Your task to perform on an android device: Open Google Chrome and open the bookmarks view Image 0: 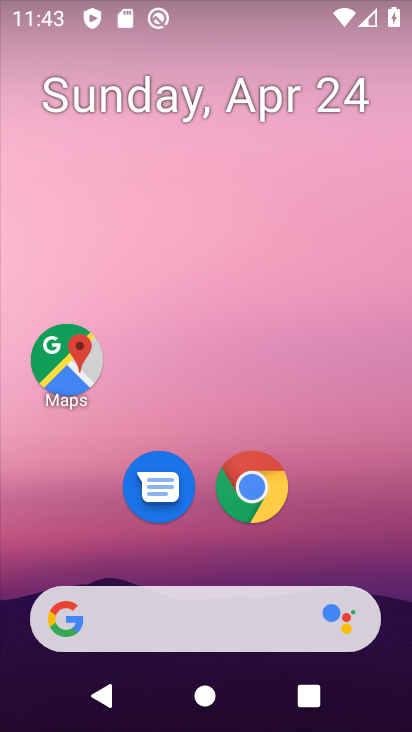
Step 0: drag from (391, 543) to (267, 71)
Your task to perform on an android device: Open Google Chrome and open the bookmarks view Image 1: 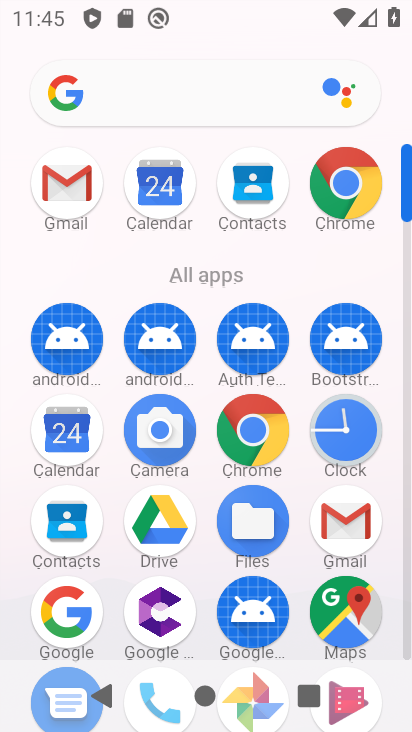
Step 1: click (259, 437)
Your task to perform on an android device: Open Google Chrome and open the bookmarks view Image 2: 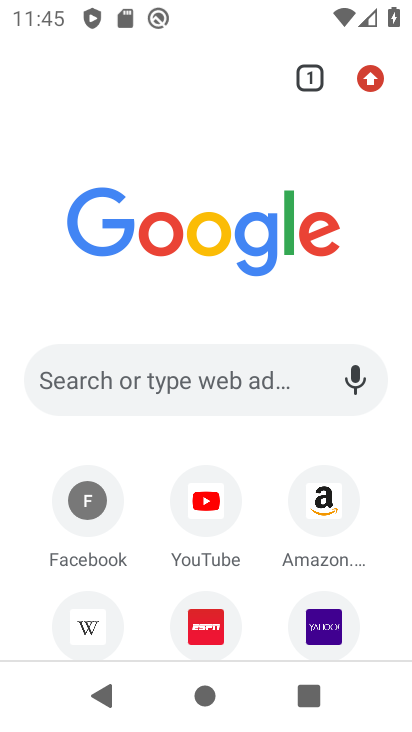
Step 2: click (377, 73)
Your task to perform on an android device: Open Google Chrome and open the bookmarks view Image 3: 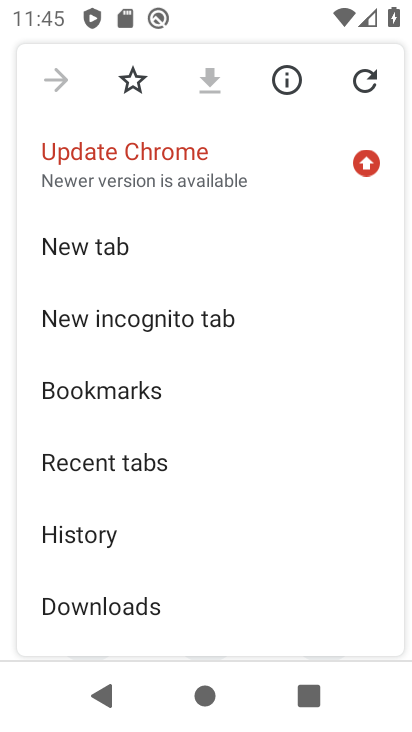
Step 3: click (136, 390)
Your task to perform on an android device: Open Google Chrome and open the bookmarks view Image 4: 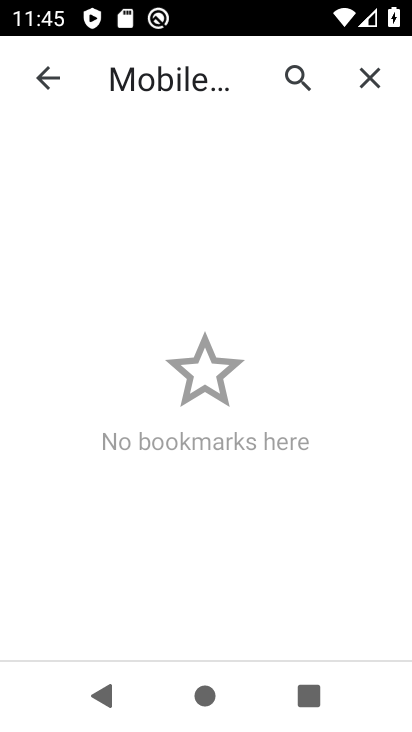
Step 4: task complete